Your task to perform on an android device: Open Android settings Image 0: 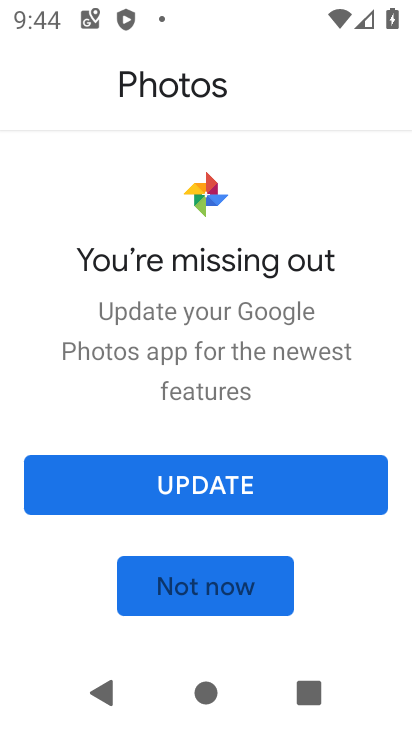
Step 0: press home button
Your task to perform on an android device: Open Android settings Image 1: 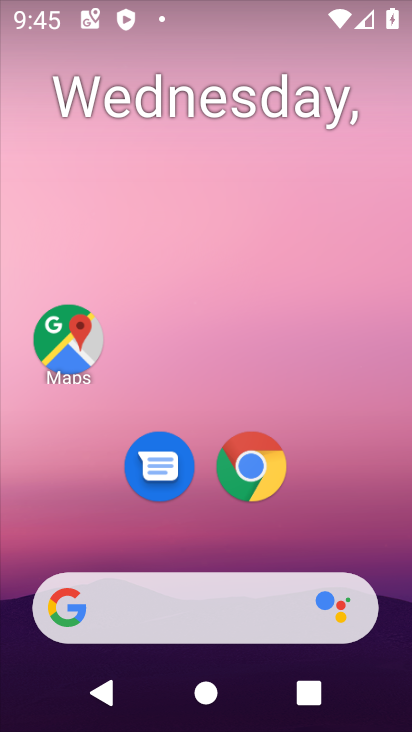
Step 1: drag from (292, 535) to (198, 79)
Your task to perform on an android device: Open Android settings Image 2: 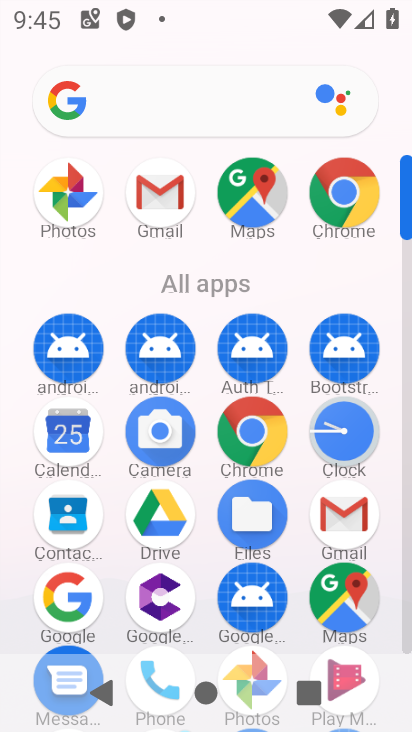
Step 2: drag from (405, 231) to (362, 296)
Your task to perform on an android device: Open Android settings Image 3: 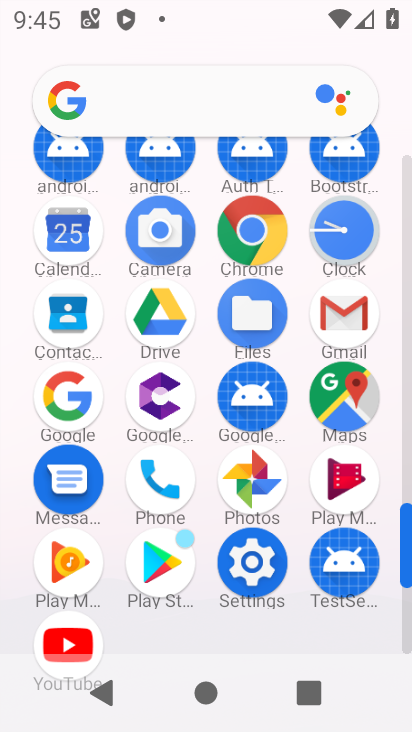
Step 3: click (264, 565)
Your task to perform on an android device: Open Android settings Image 4: 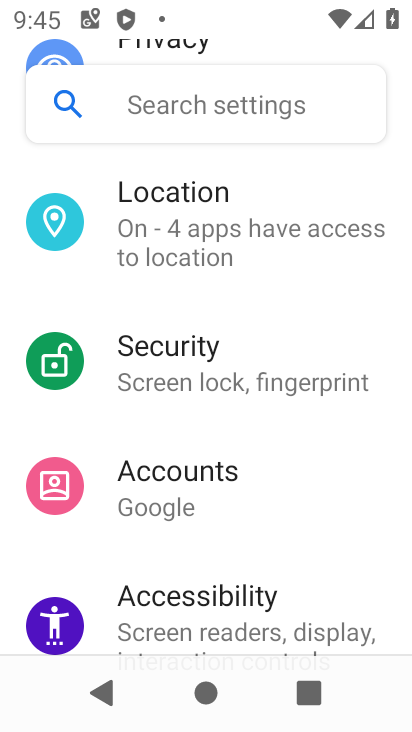
Step 4: drag from (254, 622) to (245, 93)
Your task to perform on an android device: Open Android settings Image 5: 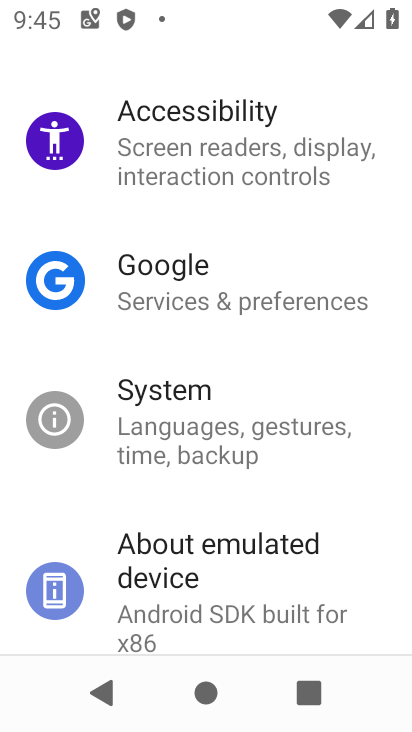
Step 5: click (157, 553)
Your task to perform on an android device: Open Android settings Image 6: 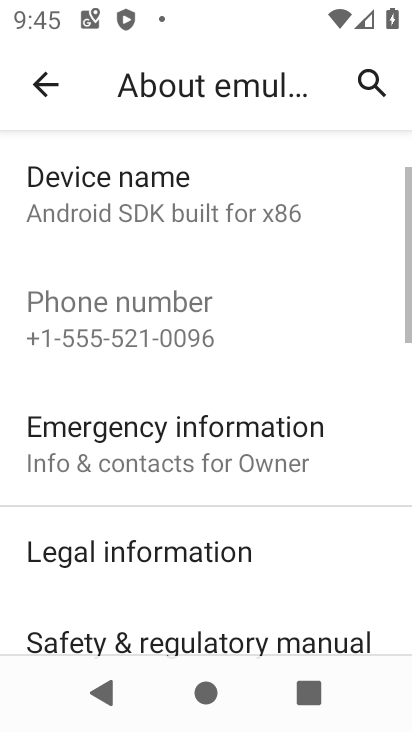
Step 6: drag from (349, 599) to (343, 184)
Your task to perform on an android device: Open Android settings Image 7: 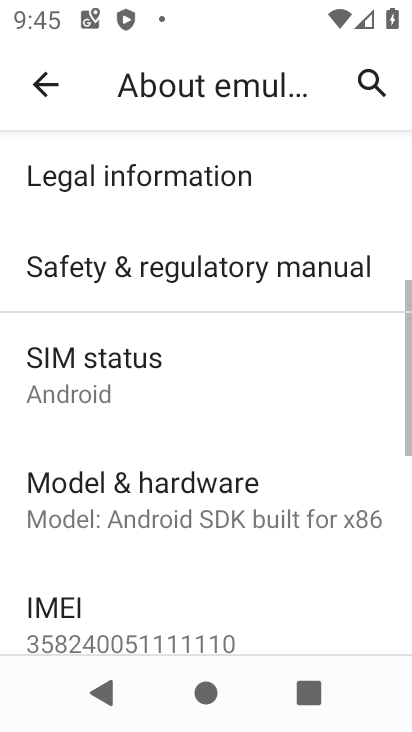
Step 7: drag from (132, 548) to (123, 251)
Your task to perform on an android device: Open Android settings Image 8: 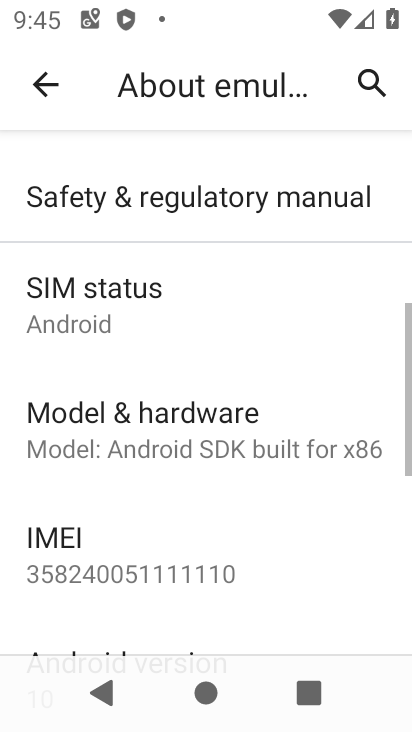
Step 8: drag from (72, 617) to (80, 421)
Your task to perform on an android device: Open Android settings Image 9: 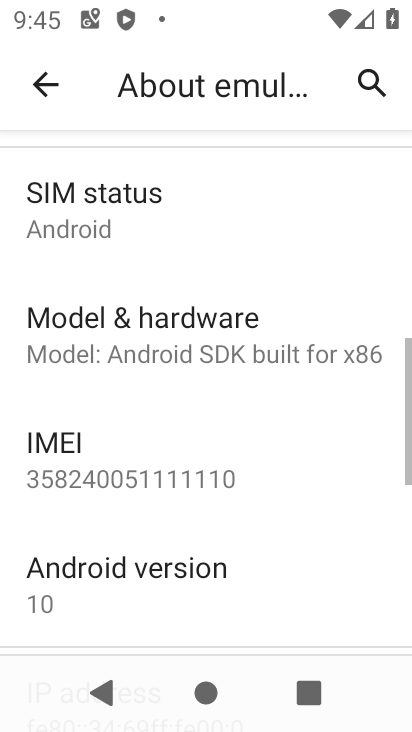
Step 9: click (80, 587)
Your task to perform on an android device: Open Android settings Image 10: 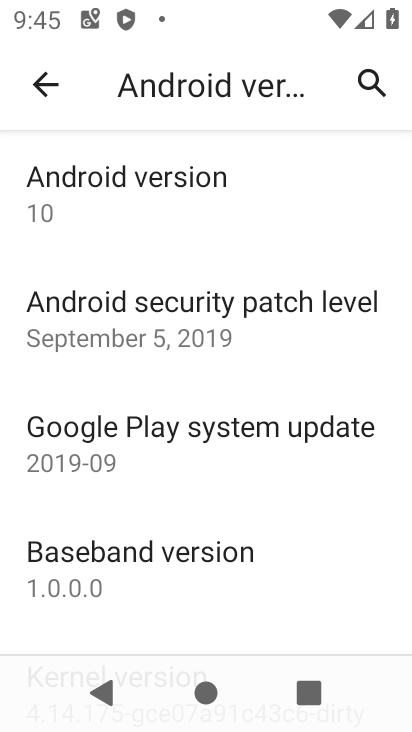
Step 10: task complete